Your task to perform on an android device: Show me popular games on the Play Store Image 0: 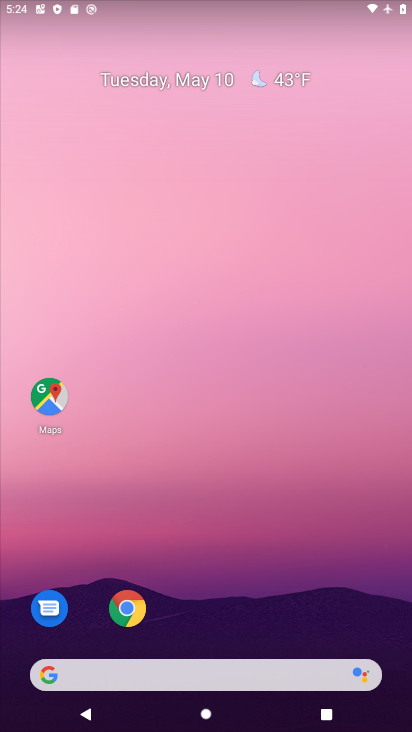
Step 0: drag from (222, 547) to (365, 11)
Your task to perform on an android device: Show me popular games on the Play Store Image 1: 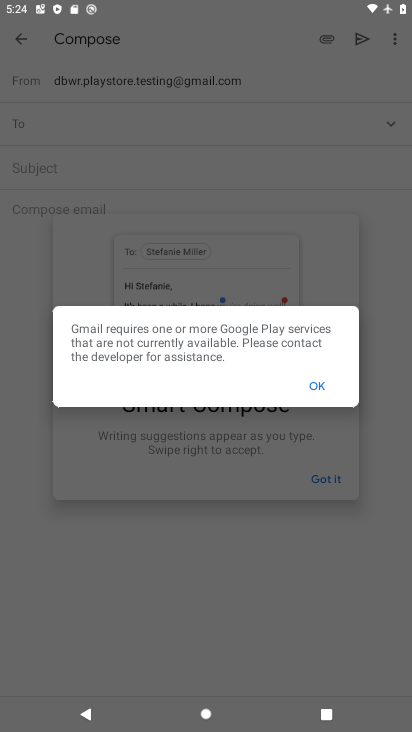
Step 1: press home button
Your task to perform on an android device: Show me popular games on the Play Store Image 2: 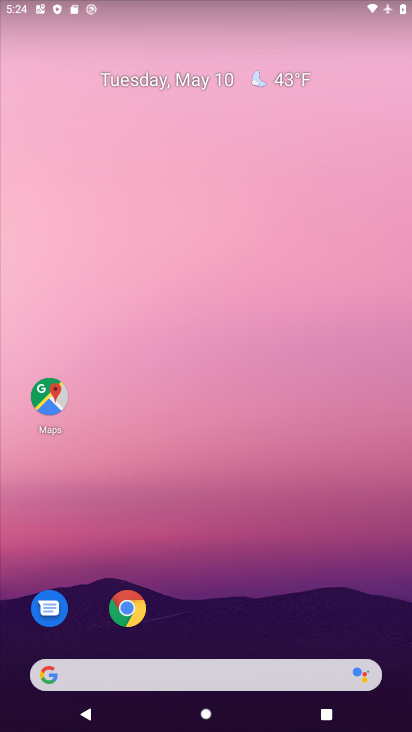
Step 2: drag from (199, 554) to (283, 29)
Your task to perform on an android device: Show me popular games on the Play Store Image 3: 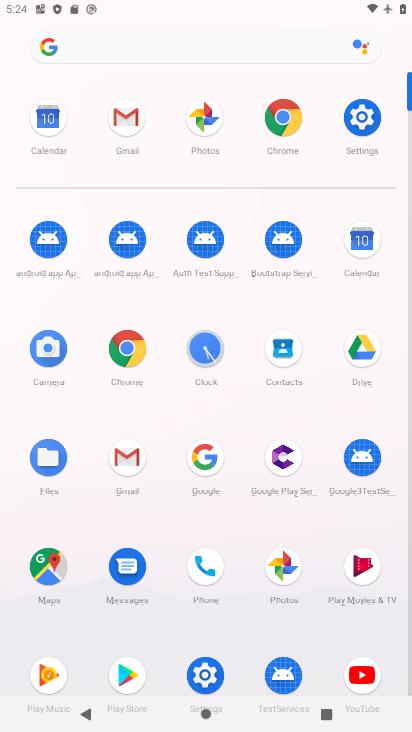
Step 3: click (128, 676)
Your task to perform on an android device: Show me popular games on the Play Store Image 4: 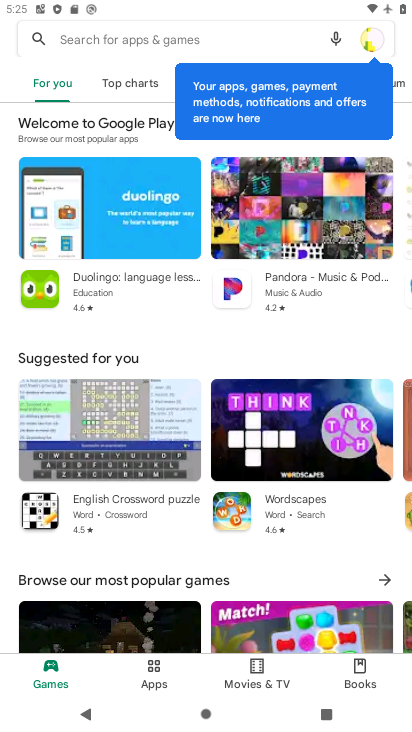
Step 4: click (58, 669)
Your task to perform on an android device: Show me popular games on the Play Store Image 5: 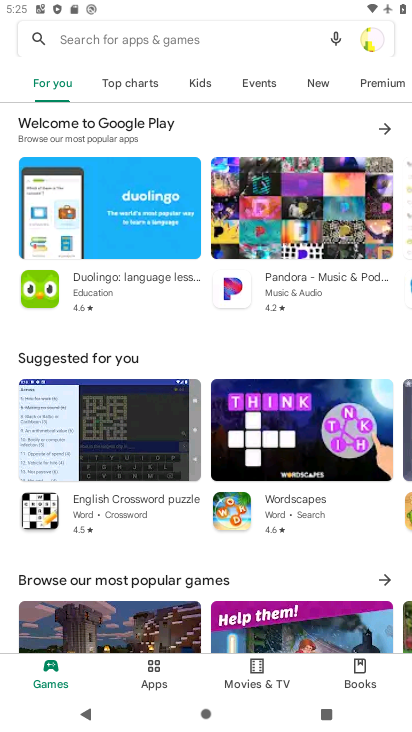
Step 5: click (388, 578)
Your task to perform on an android device: Show me popular games on the Play Store Image 6: 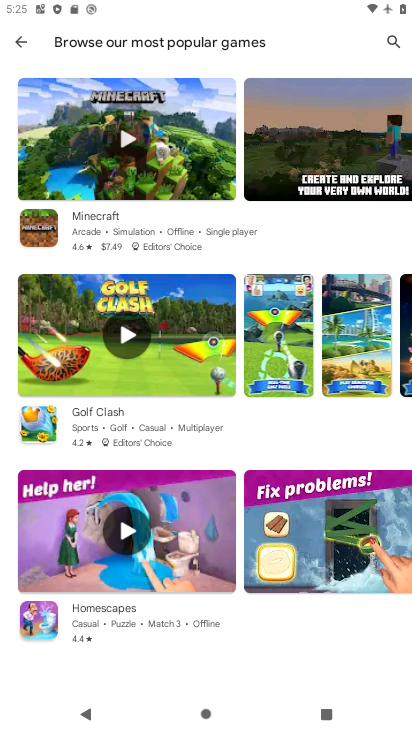
Step 6: task complete